Your task to perform on an android device: open app "Spotify" (install if not already installed), go to login, and select forgot password Image 0: 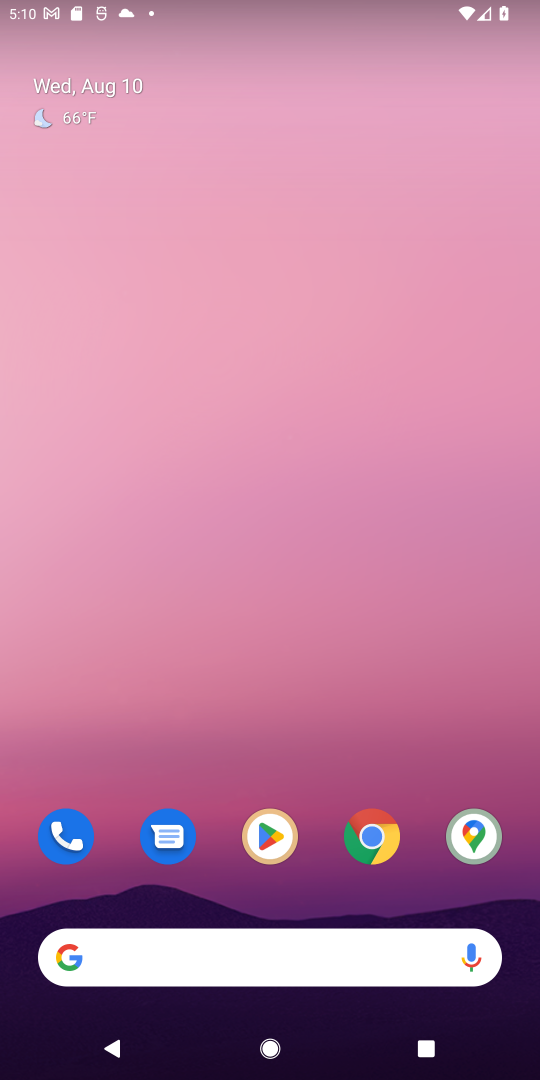
Step 0: drag from (306, 887) to (279, 292)
Your task to perform on an android device: open app "Spotify" (install if not already installed), go to login, and select forgot password Image 1: 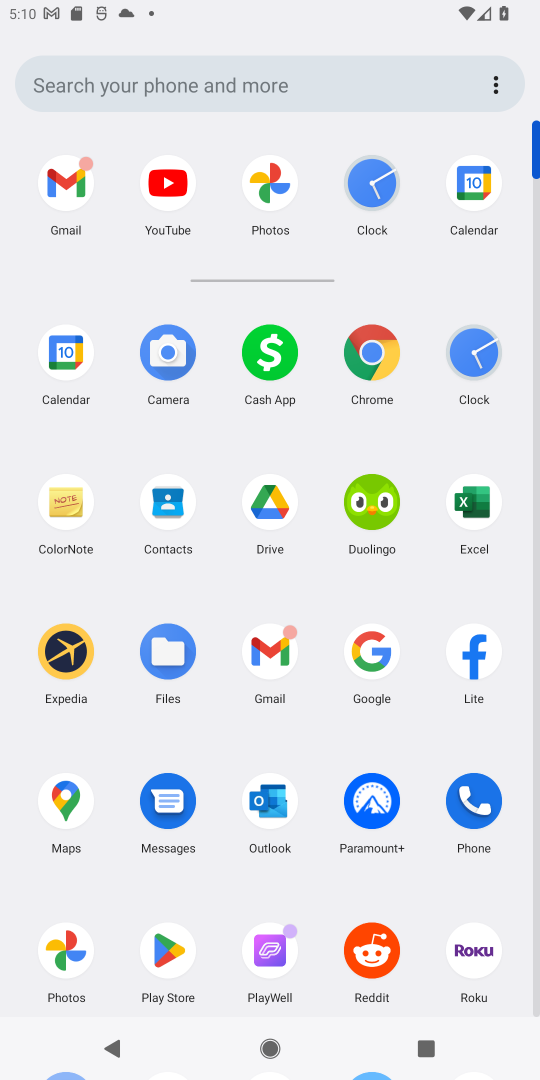
Step 1: click (165, 944)
Your task to perform on an android device: open app "Spotify" (install if not already installed), go to login, and select forgot password Image 2: 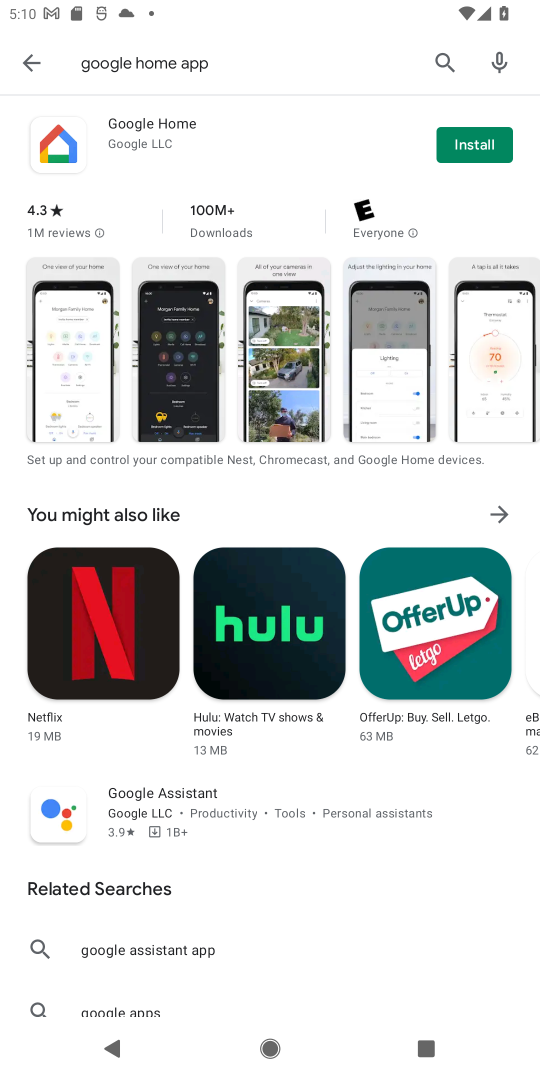
Step 2: click (27, 46)
Your task to perform on an android device: open app "Spotify" (install if not already installed), go to login, and select forgot password Image 3: 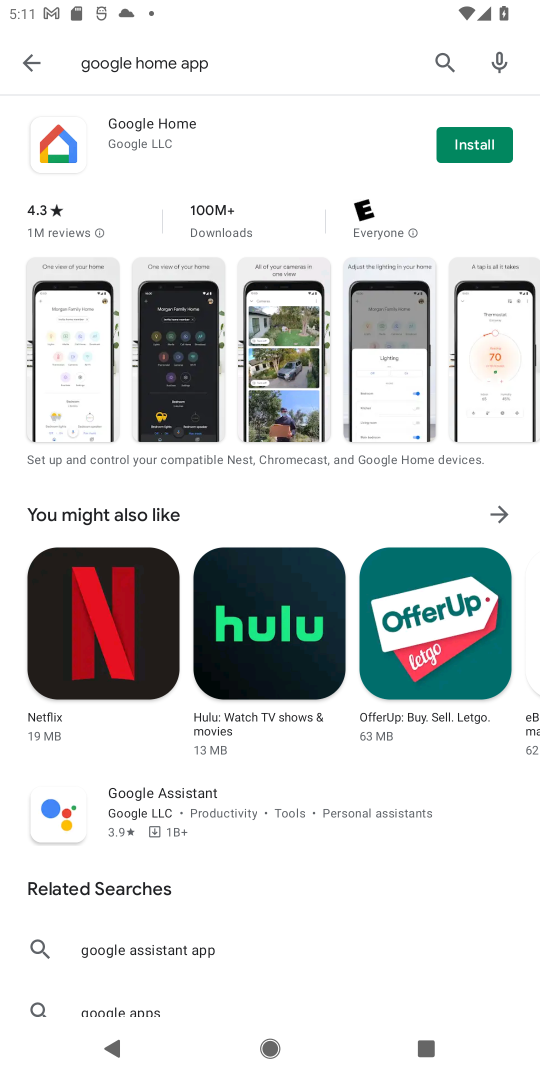
Step 3: click (27, 46)
Your task to perform on an android device: open app "Spotify" (install if not already installed), go to login, and select forgot password Image 4: 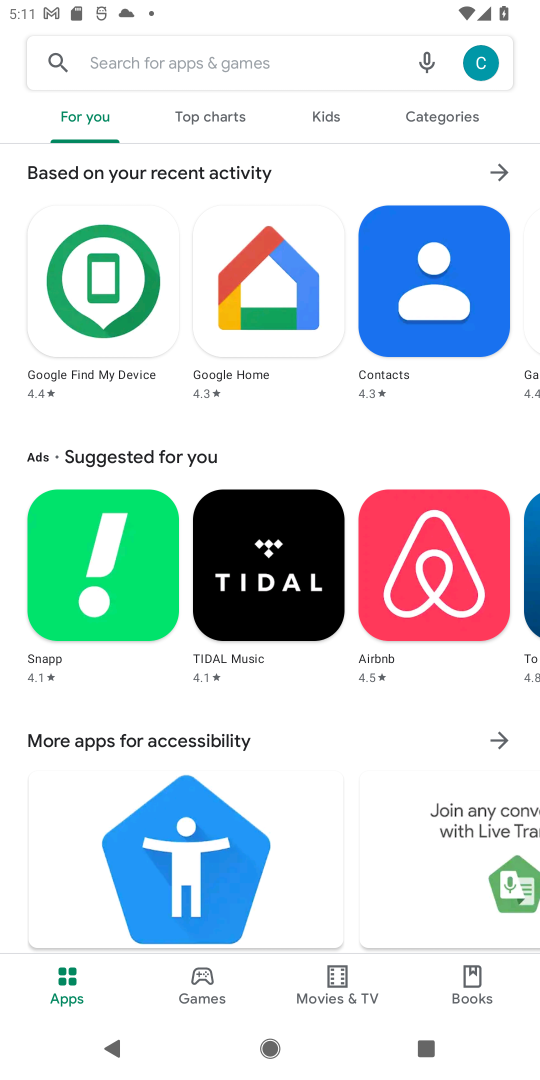
Step 4: click (152, 56)
Your task to perform on an android device: open app "Spotify" (install if not already installed), go to login, and select forgot password Image 5: 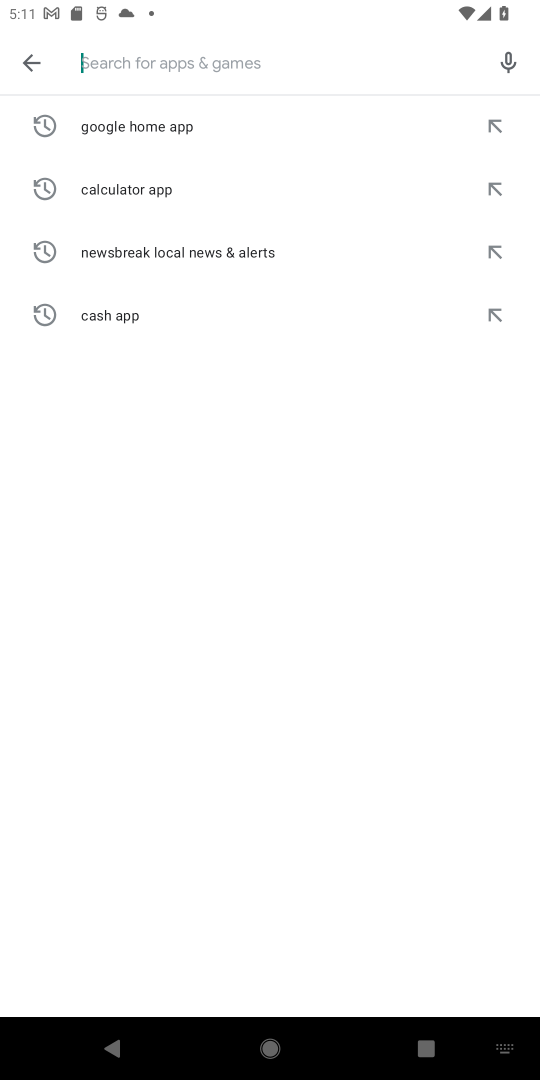
Step 5: type "spotify"
Your task to perform on an android device: open app "Spotify" (install if not already installed), go to login, and select forgot password Image 6: 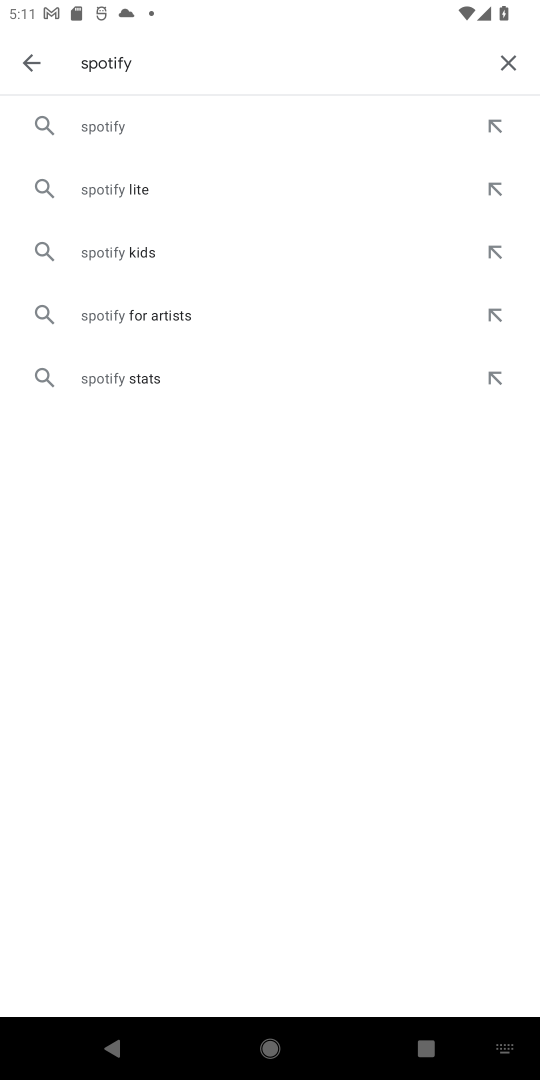
Step 6: click (107, 136)
Your task to perform on an android device: open app "Spotify" (install if not already installed), go to login, and select forgot password Image 7: 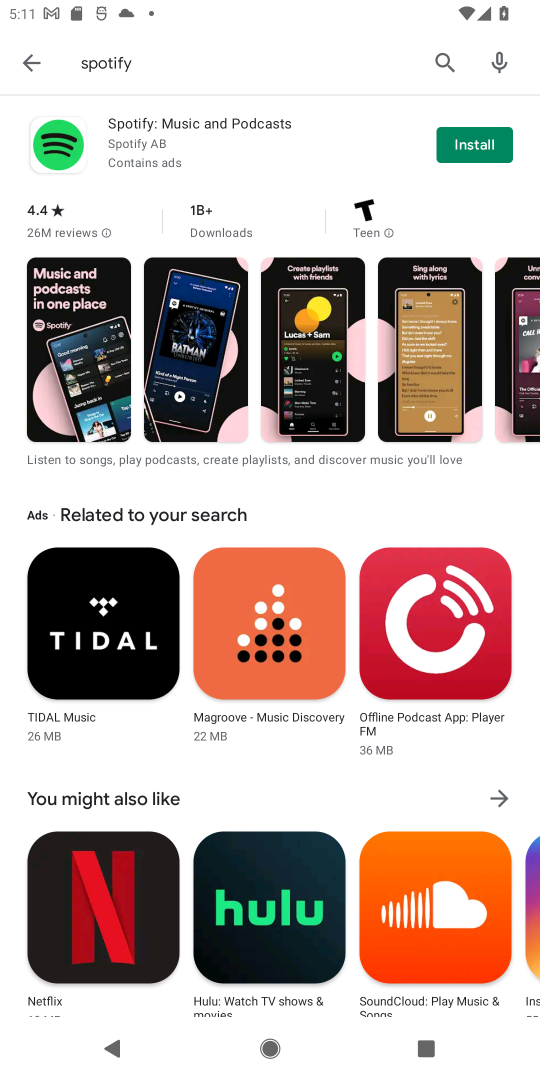
Step 7: click (482, 150)
Your task to perform on an android device: open app "Spotify" (install if not already installed), go to login, and select forgot password Image 8: 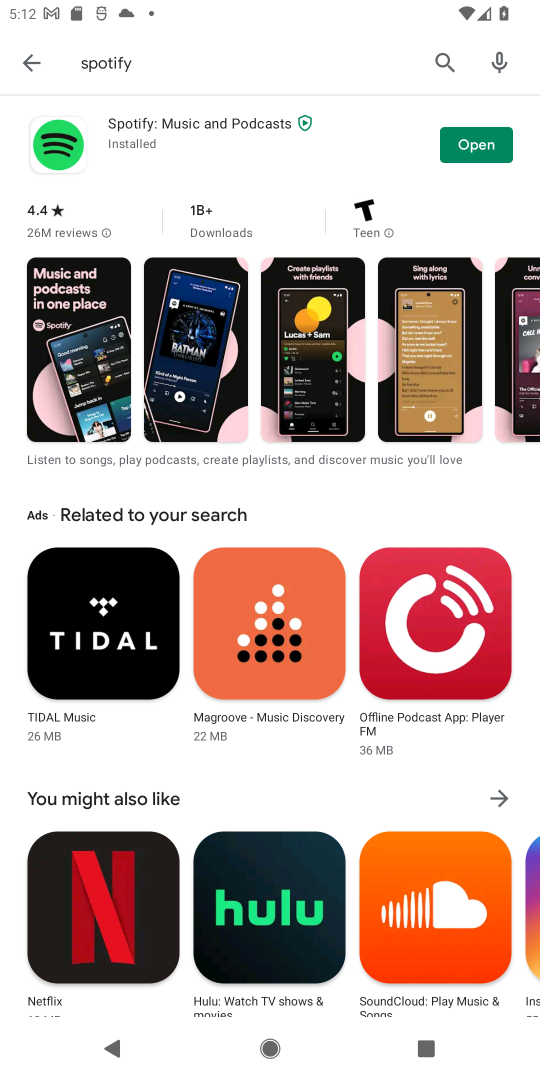
Step 8: click (480, 144)
Your task to perform on an android device: open app "Spotify" (install if not already installed), go to login, and select forgot password Image 9: 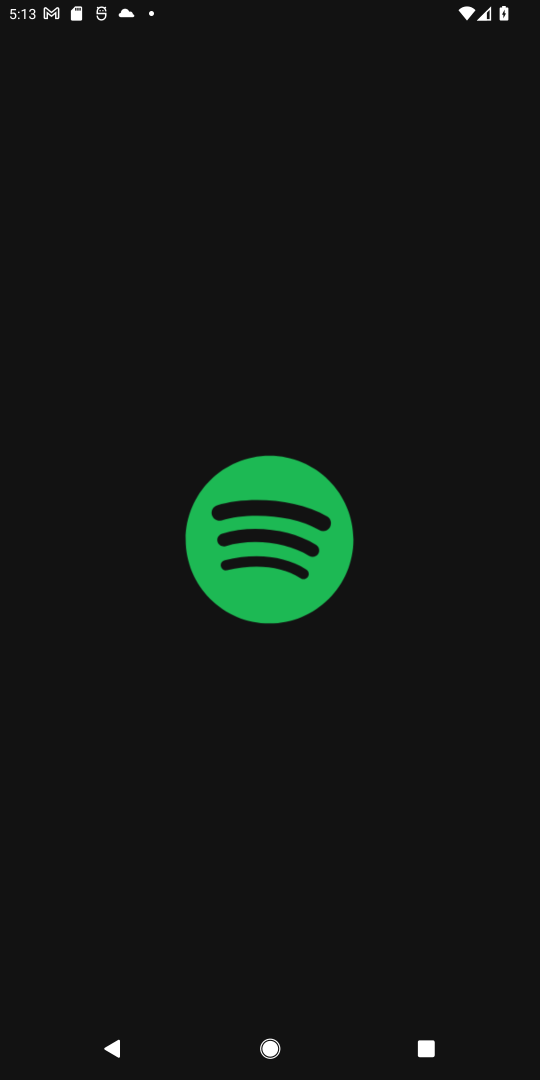
Step 9: task complete